Your task to perform on an android device: Open battery settings Image 0: 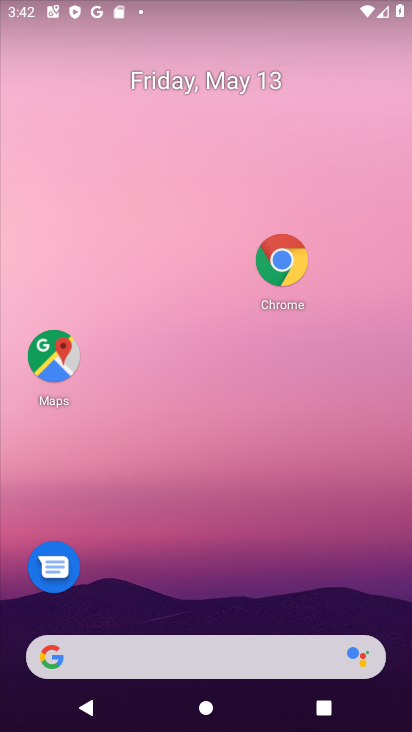
Step 0: drag from (294, 651) to (229, 163)
Your task to perform on an android device: Open battery settings Image 1: 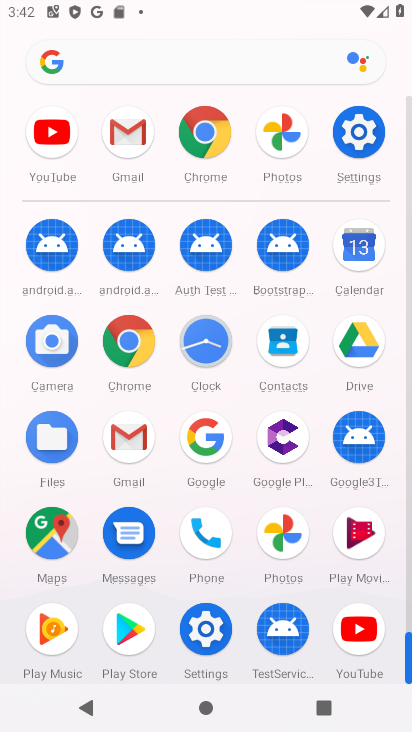
Step 1: click (361, 138)
Your task to perform on an android device: Open battery settings Image 2: 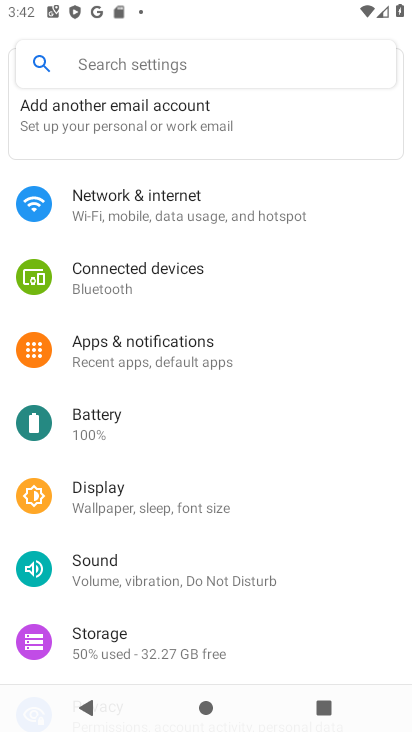
Step 2: click (90, 419)
Your task to perform on an android device: Open battery settings Image 3: 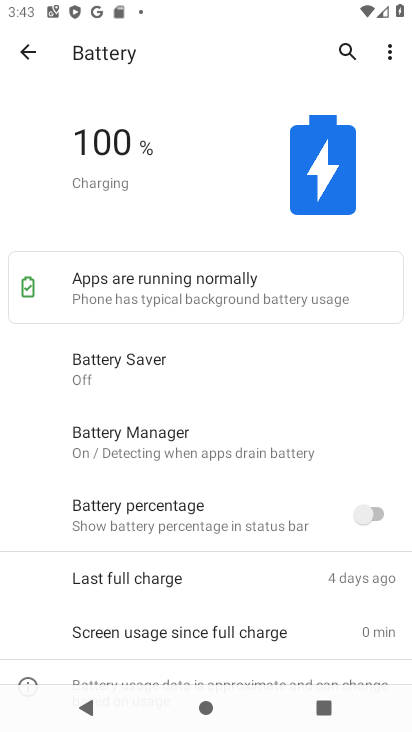
Step 3: task complete